Your task to perform on an android device: clear history in the chrome app Image 0: 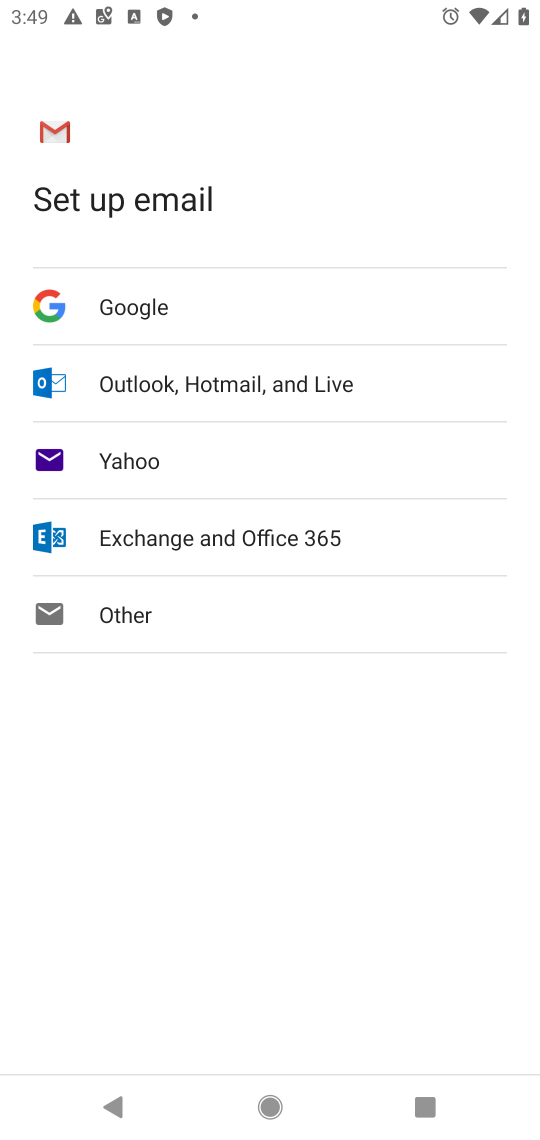
Step 0: press home button
Your task to perform on an android device: clear history in the chrome app Image 1: 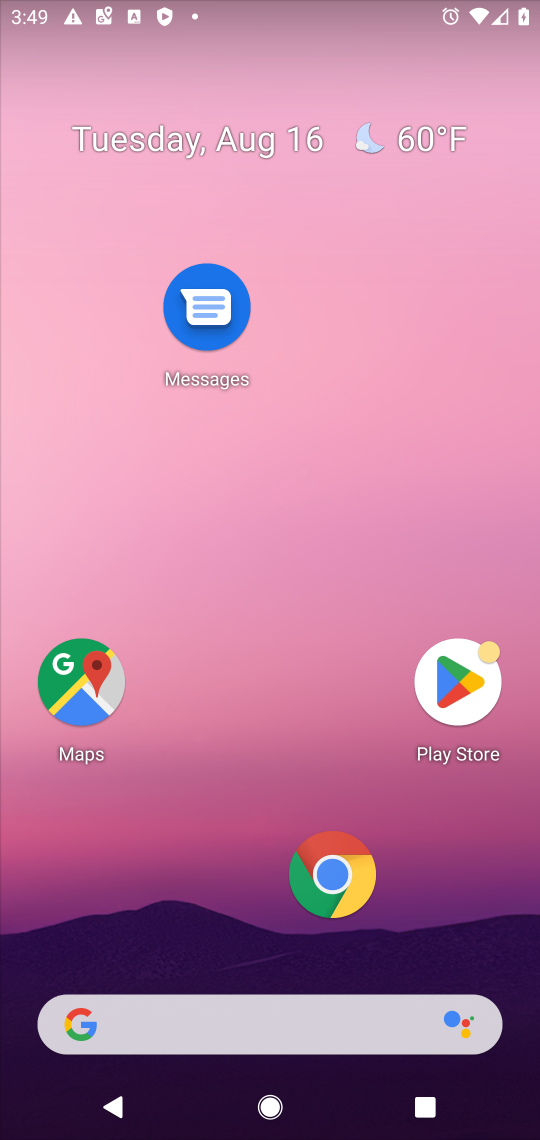
Step 1: click (314, 866)
Your task to perform on an android device: clear history in the chrome app Image 2: 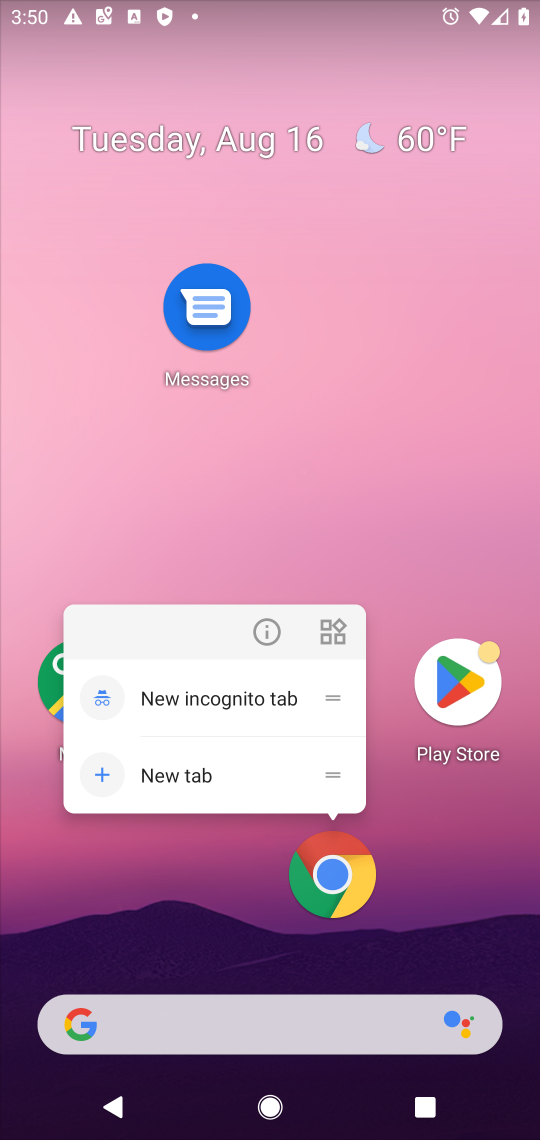
Step 2: click (336, 872)
Your task to perform on an android device: clear history in the chrome app Image 3: 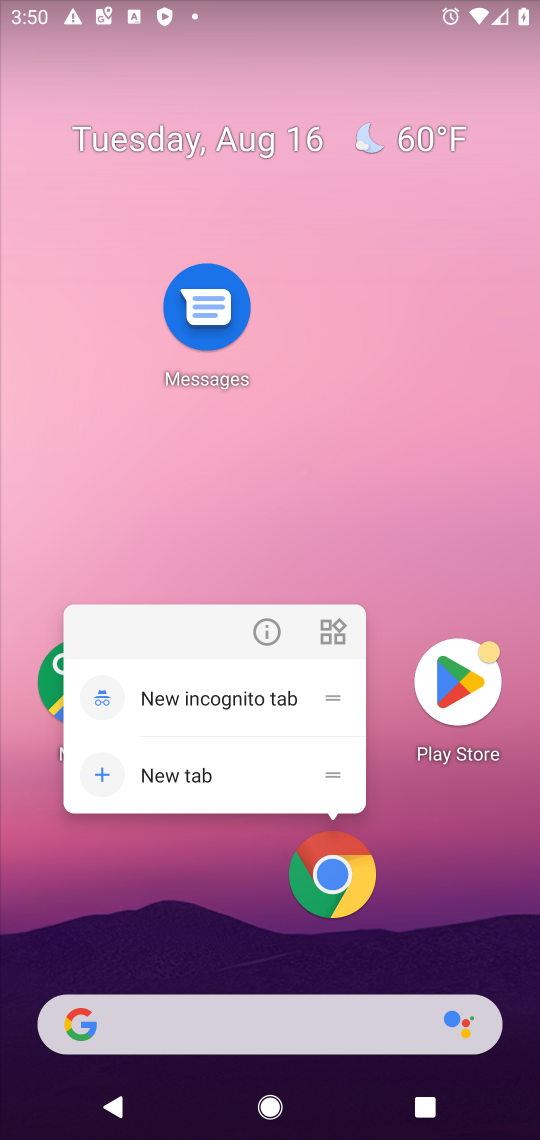
Step 3: click (332, 868)
Your task to perform on an android device: clear history in the chrome app Image 4: 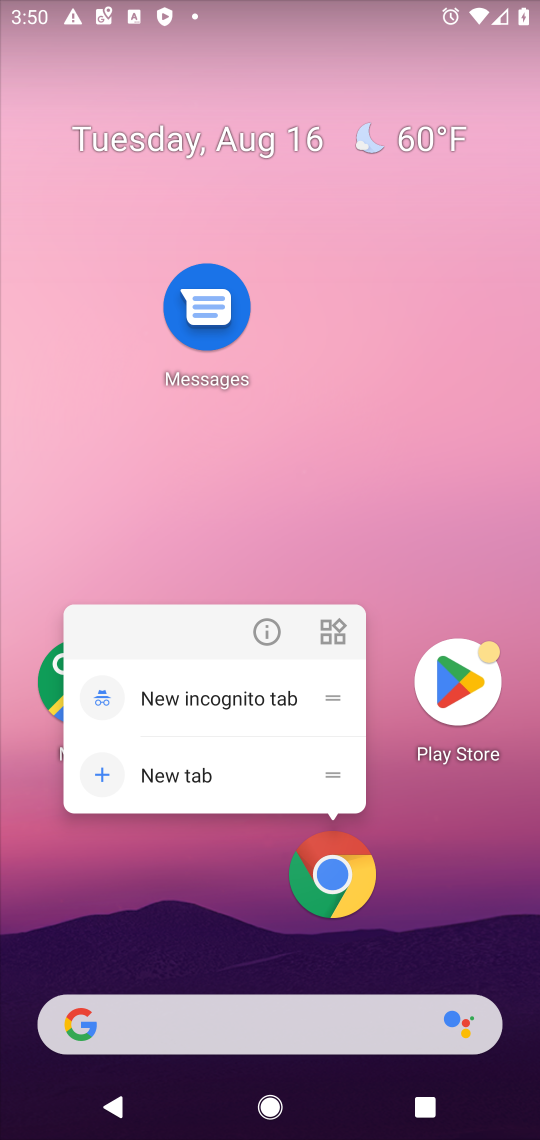
Step 4: click (328, 873)
Your task to perform on an android device: clear history in the chrome app Image 5: 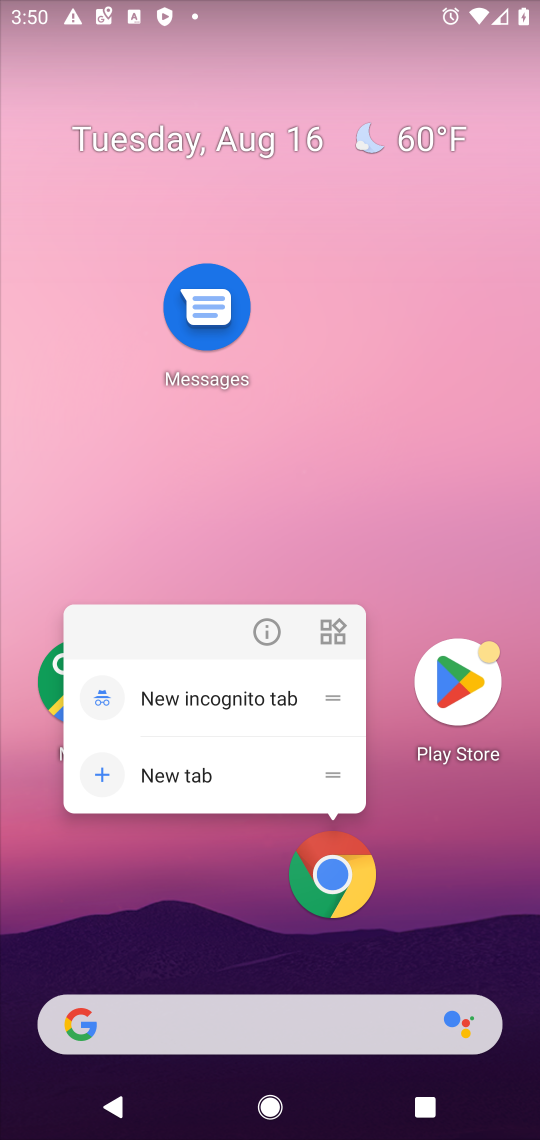
Step 5: click (328, 873)
Your task to perform on an android device: clear history in the chrome app Image 6: 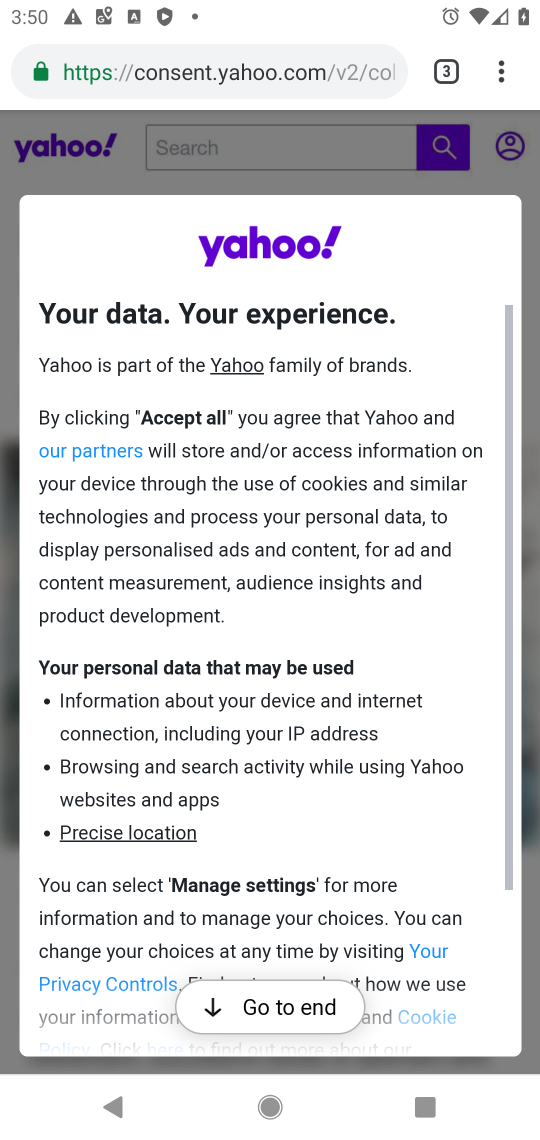
Step 6: click (446, 69)
Your task to perform on an android device: clear history in the chrome app Image 7: 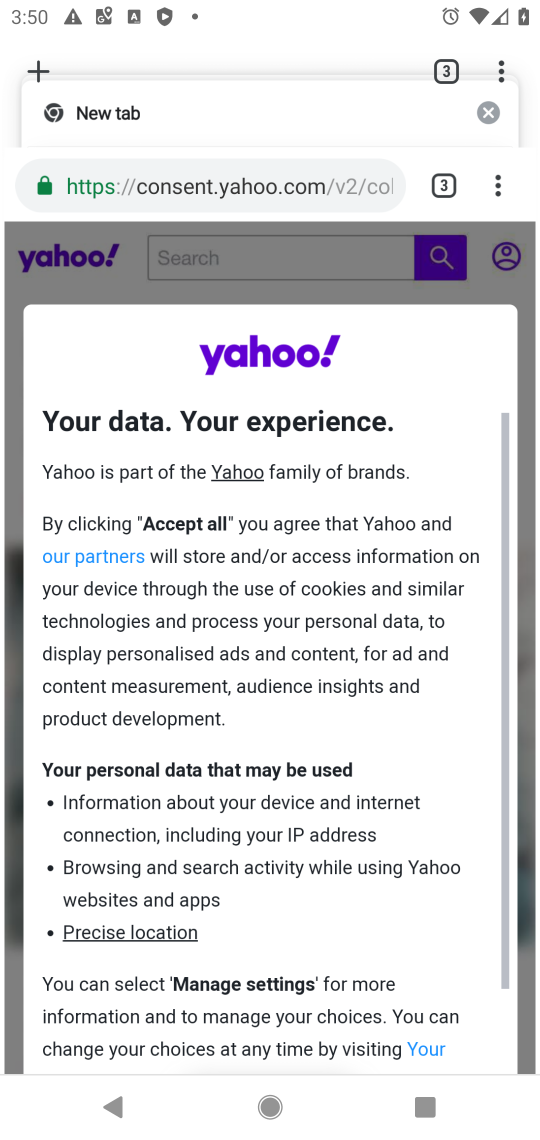
Step 7: click (504, 74)
Your task to perform on an android device: clear history in the chrome app Image 8: 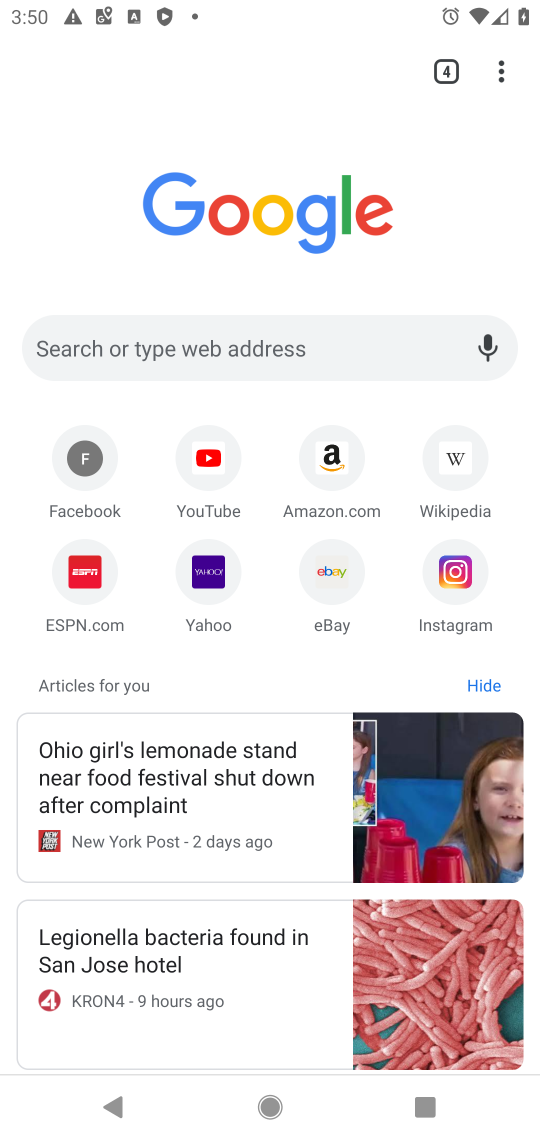
Step 8: click (493, 73)
Your task to perform on an android device: clear history in the chrome app Image 9: 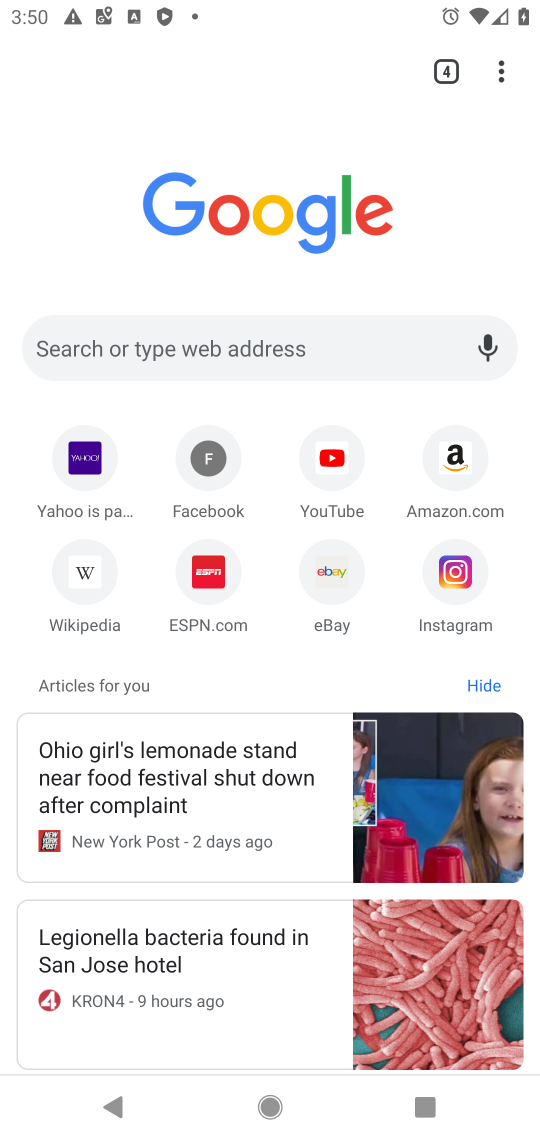
Step 9: click (493, 77)
Your task to perform on an android device: clear history in the chrome app Image 10: 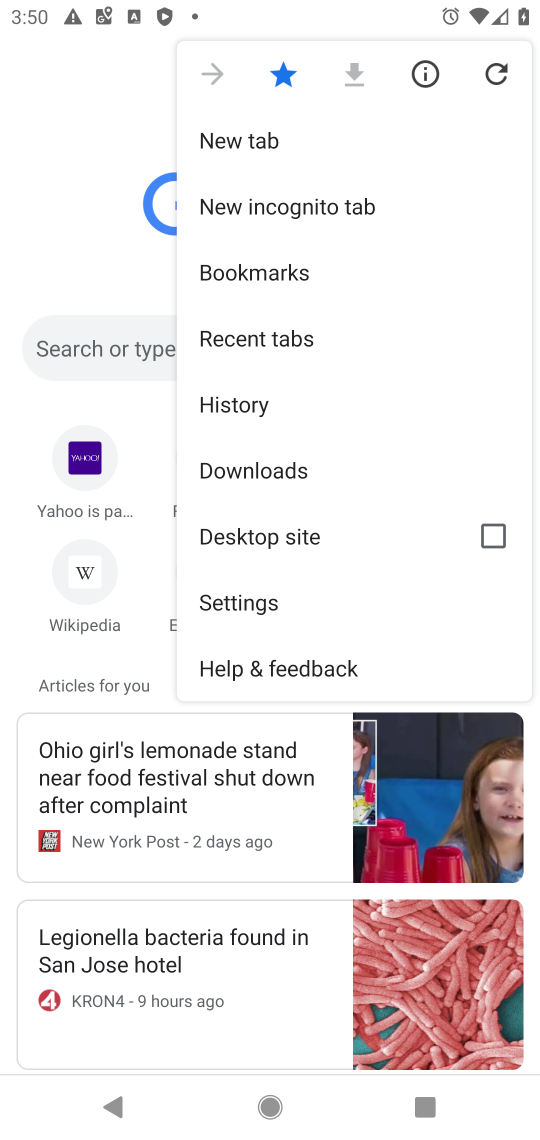
Step 10: click (257, 409)
Your task to perform on an android device: clear history in the chrome app Image 11: 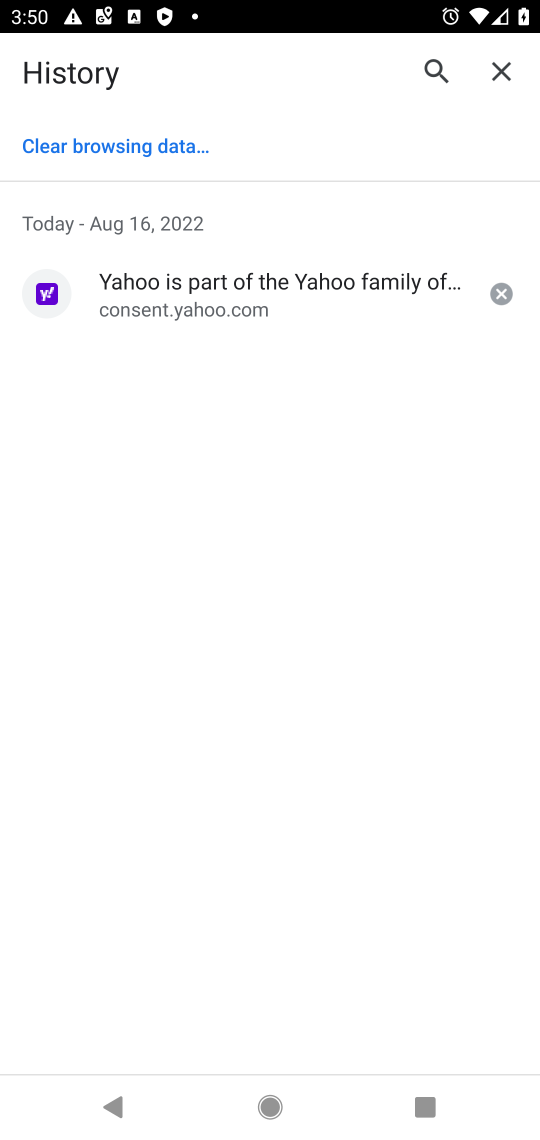
Step 11: click (124, 137)
Your task to perform on an android device: clear history in the chrome app Image 12: 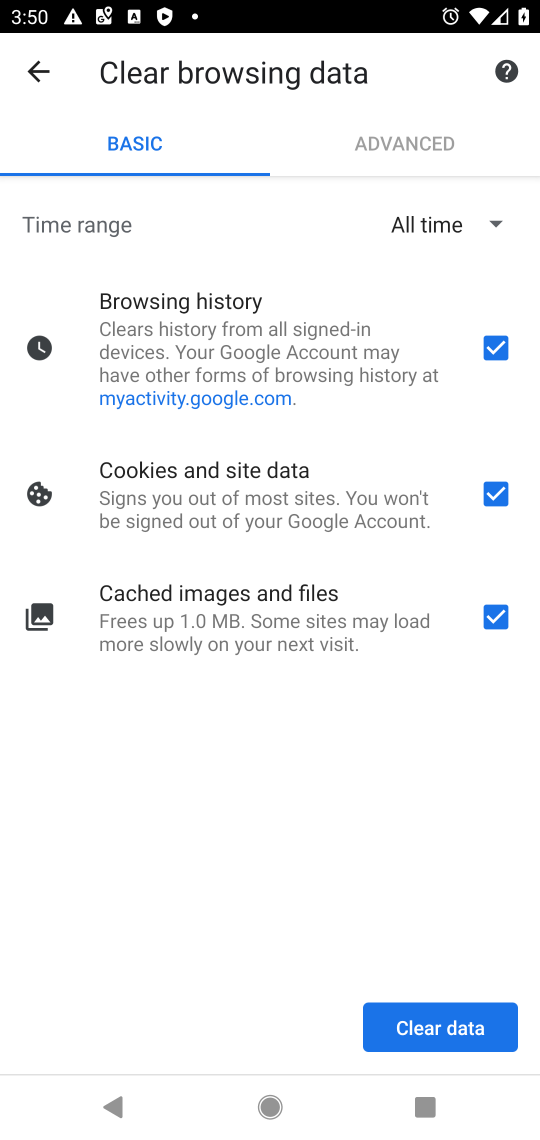
Step 12: click (405, 1027)
Your task to perform on an android device: clear history in the chrome app Image 13: 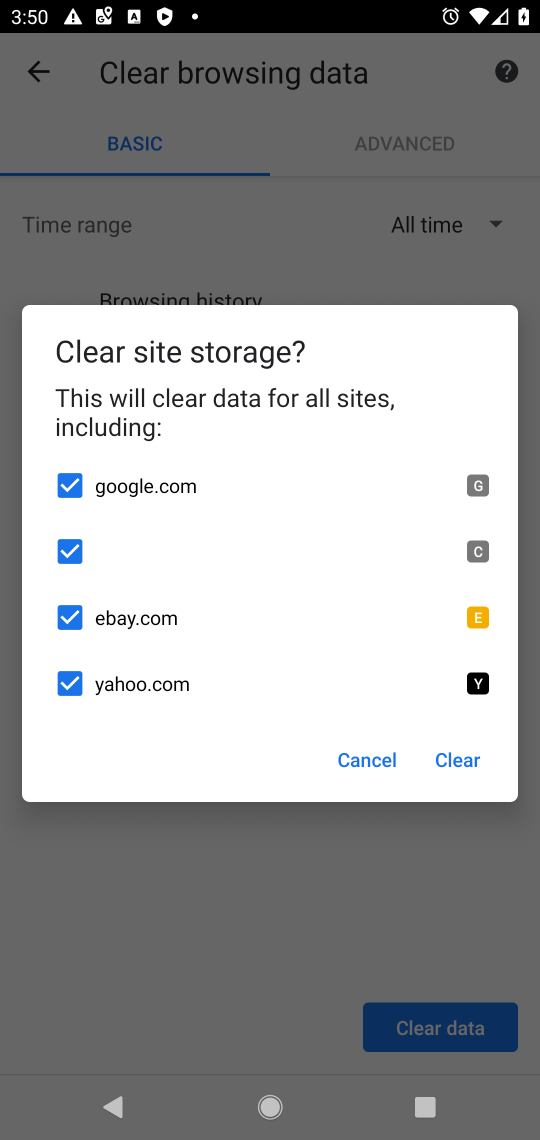
Step 13: click (449, 752)
Your task to perform on an android device: clear history in the chrome app Image 14: 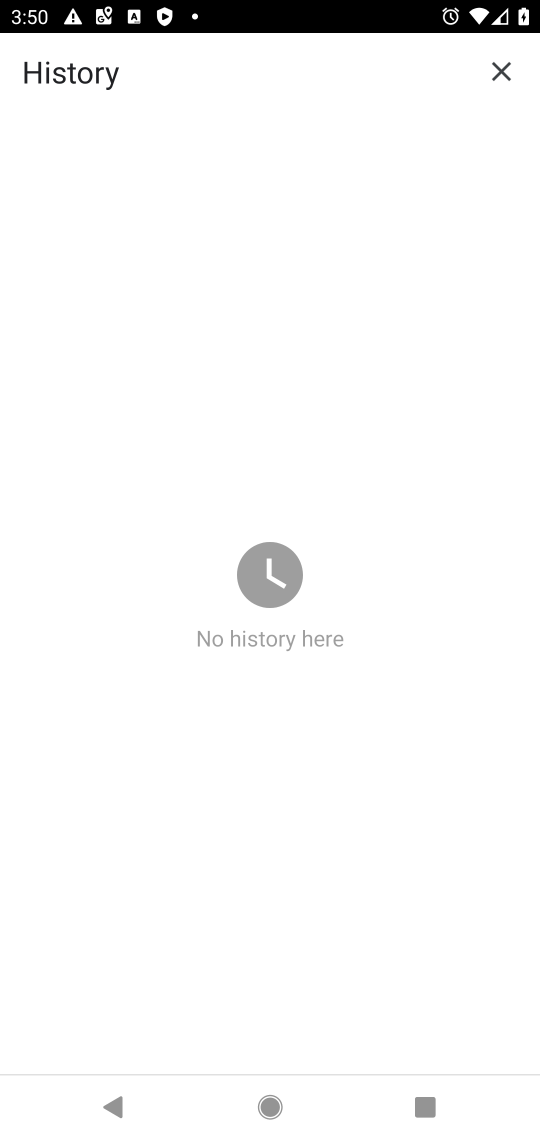
Step 14: task complete